Your task to perform on an android device: Open notification settings Image 0: 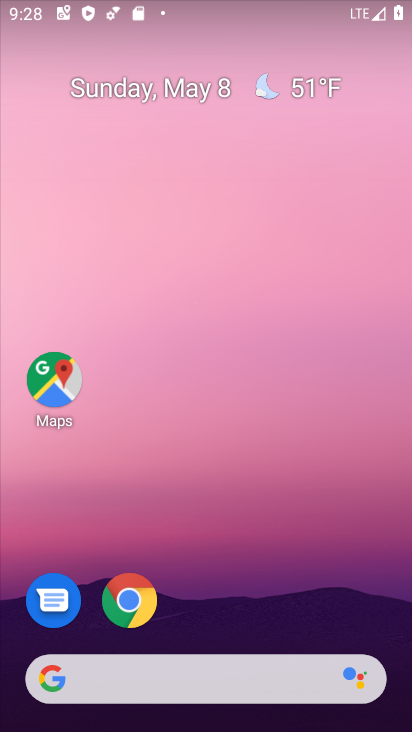
Step 0: drag from (344, 594) to (318, 4)
Your task to perform on an android device: Open notification settings Image 1: 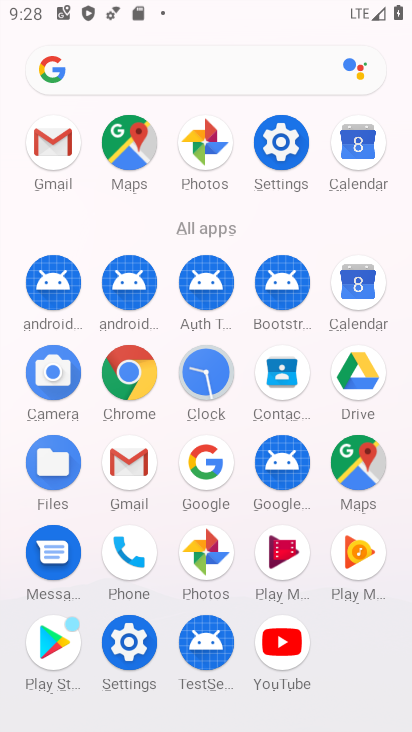
Step 1: click (277, 155)
Your task to perform on an android device: Open notification settings Image 2: 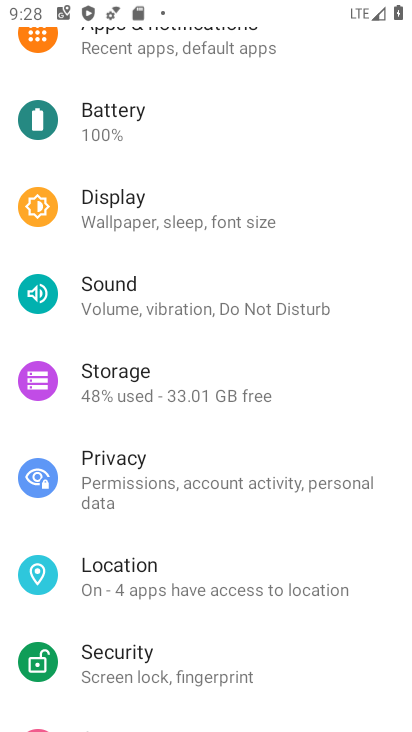
Step 2: drag from (339, 260) to (321, 643)
Your task to perform on an android device: Open notification settings Image 3: 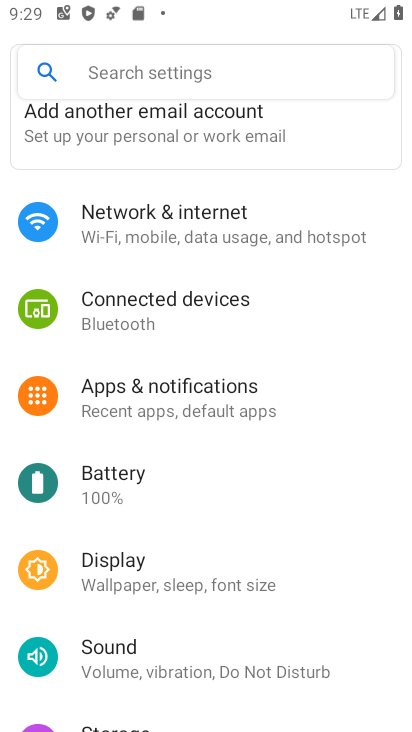
Step 3: click (151, 410)
Your task to perform on an android device: Open notification settings Image 4: 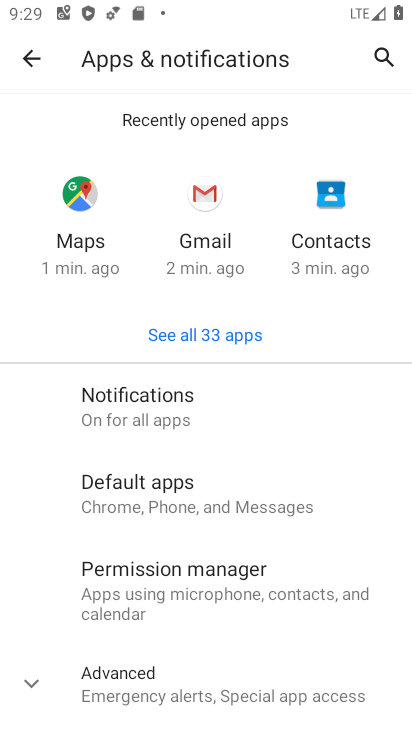
Step 4: task complete